Your task to perform on an android device: find photos in the google photos app Image 0: 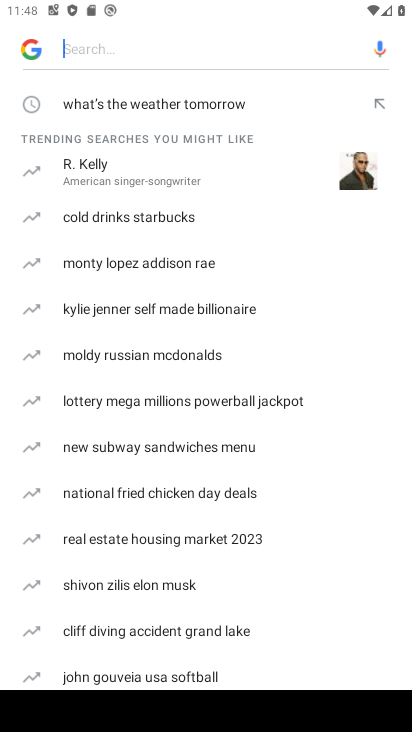
Step 0: press home button
Your task to perform on an android device: find photos in the google photos app Image 1: 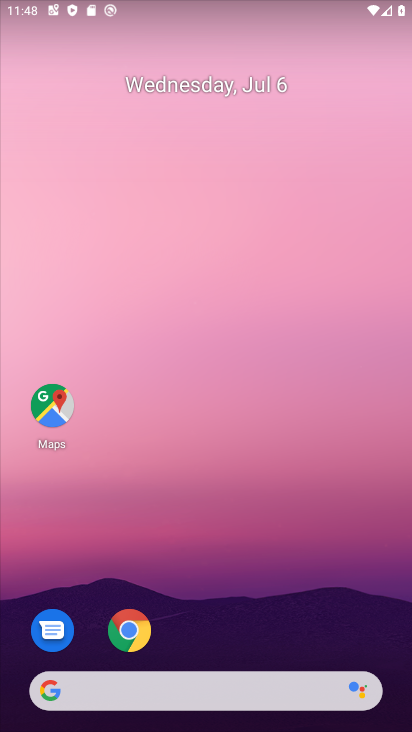
Step 1: drag from (286, 583) to (218, 4)
Your task to perform on an android device: find photos in the google photos app Image 2: 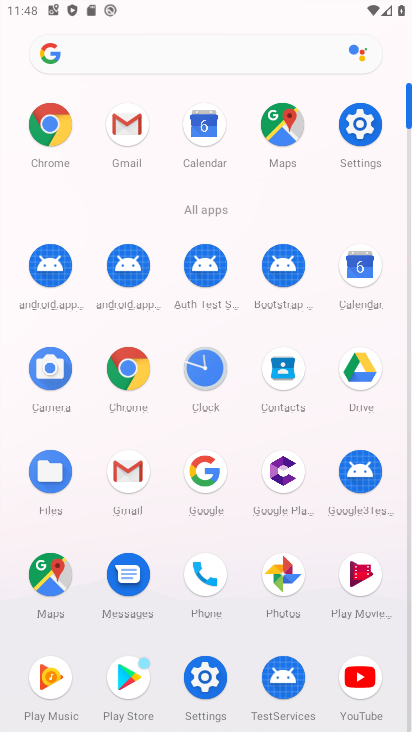
Step 2: click (266, 576)
Your task to perform on an android device: find photos in the google photos app Image 3: 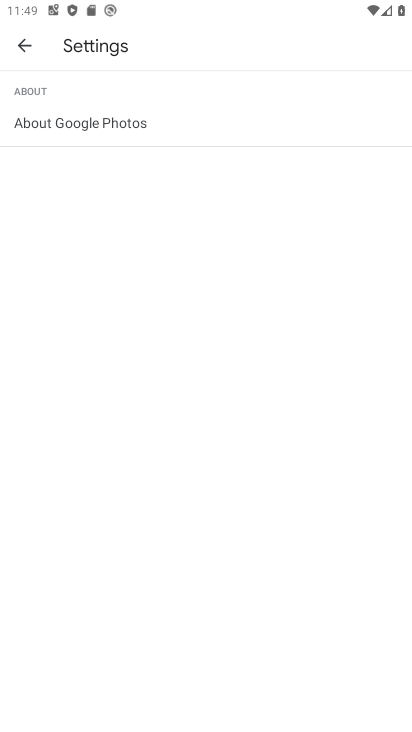
Step 3: click (21, 37)
Your task to perform on an android device: find photos in the google photos app Image 4: 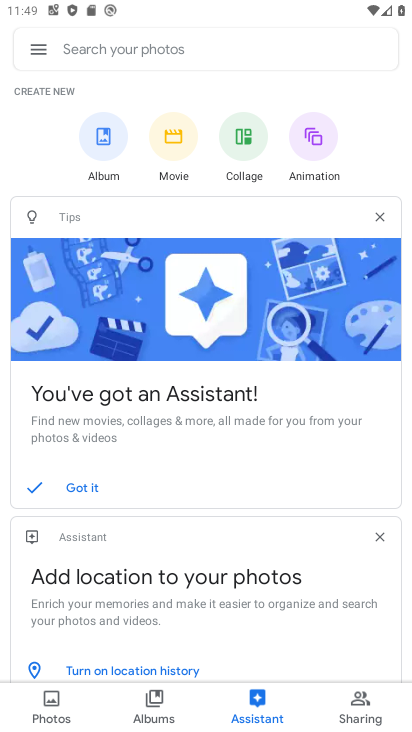
Step 4: click (50, 699)
Your task to perform on an android device: find photos in the google photos app Image 5: 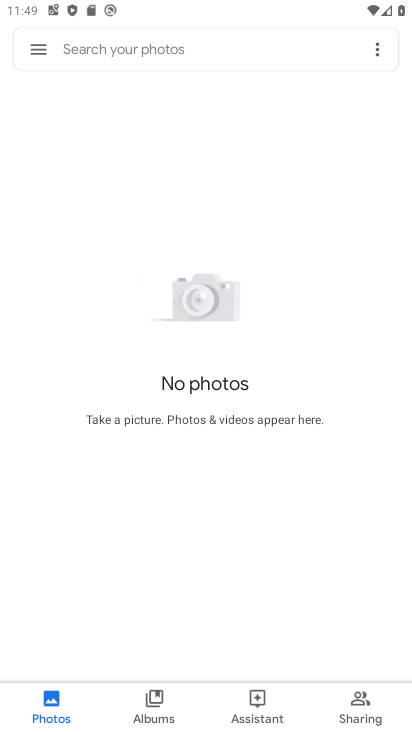
Step 5: task complete